Your task to perform on an android device: When is my next meeting? Image 0: 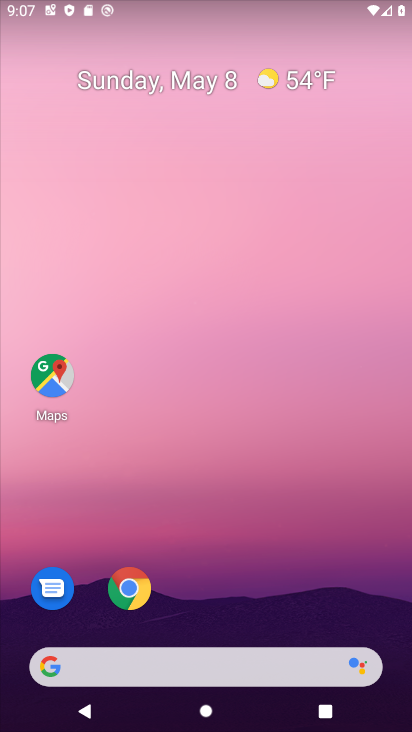
Step 0: drag from (29, 645) to (323, 148)
Your task to perform on an android device: When is my next meeting? Image 1: 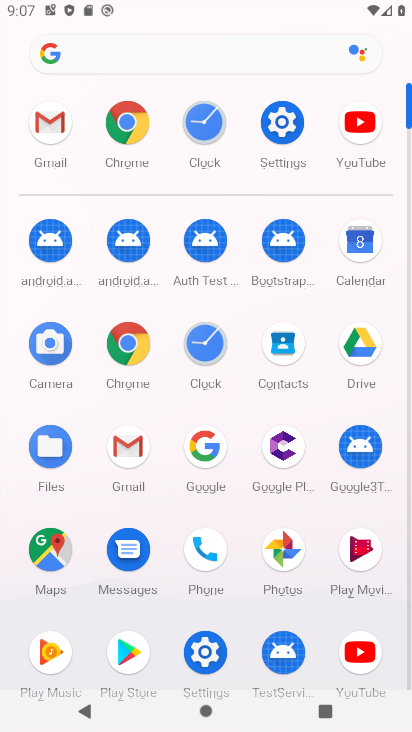
Step 1: click (363, 262)
Your task to perform on an android device: When is my next meeting? Image 2: 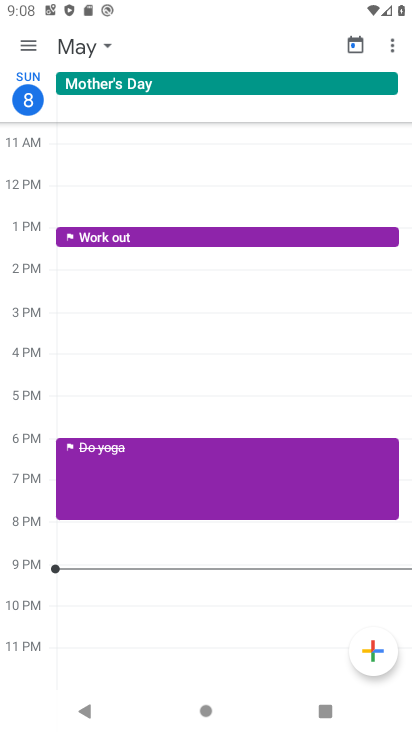
Step 2: task complete